Your task to perform on an android device: see tabs open on other devices in the chrome app Image 0: 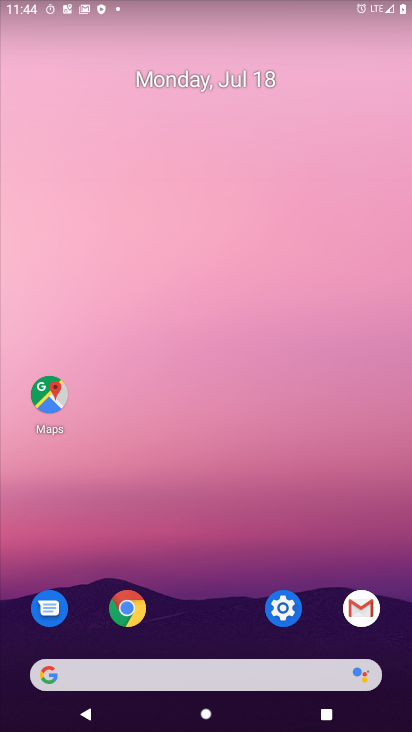
Step 0: press home button
Your task to perform on an android device: see tabs open on other devices in the chrome app Image 1: 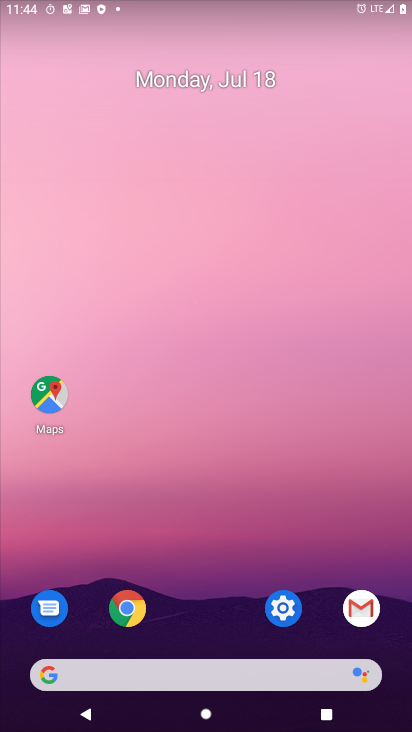
Step 1: click (127, 599)
Your task to perform on an android device: see tabs open on other devices in the chrome app Image 2: 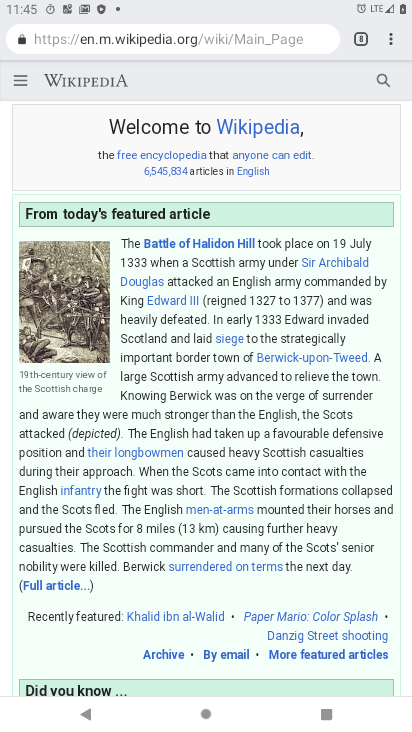
Step 2: click (359, 40)
Your task to perform on an android device: see tabs open on other devices in the chrome app Image 3: 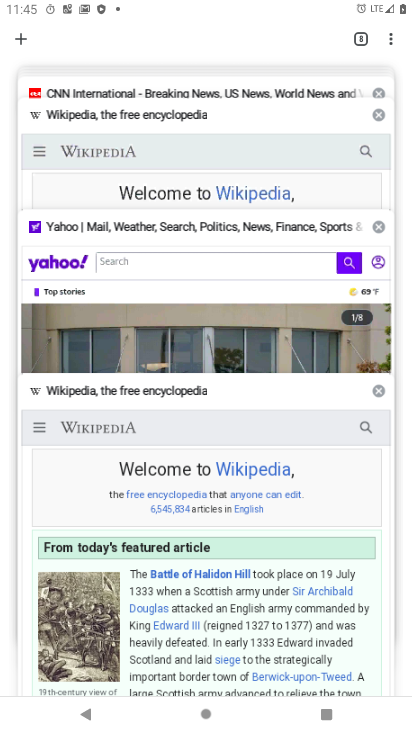
Step 3: click (22, 34)
Your task to perform on an android device: see tabs open on other devices in the chrome app Image 4: 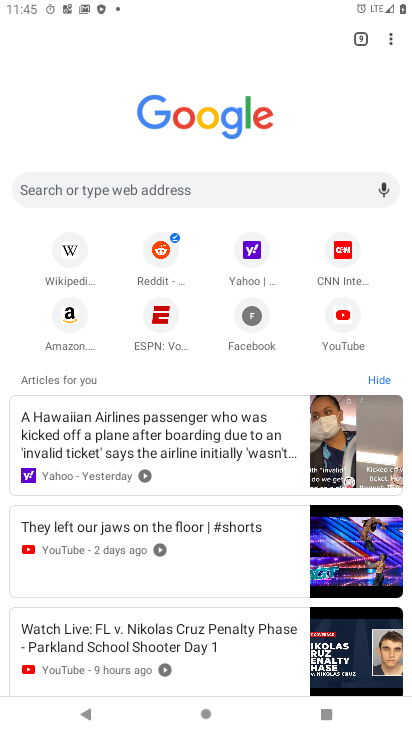
Step 4: task complete